Your task to perform on an android device: Search for 3d printed chess sets on Etsy. Image 0: 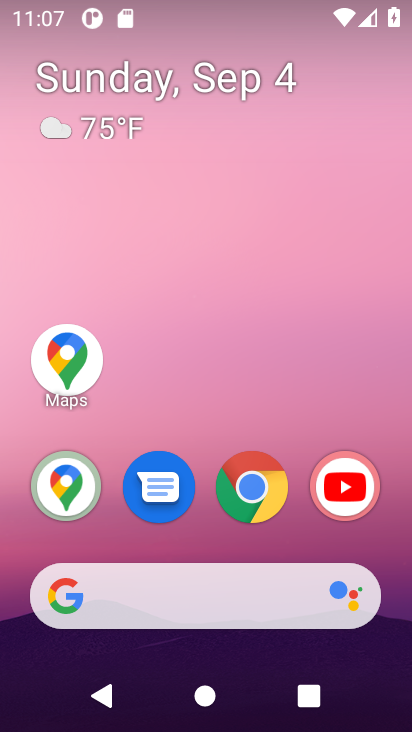
Step 0: click (222, 454)
Your task to perform on an android device: Search for 3d printed chess sets on Etsy. Image 1: 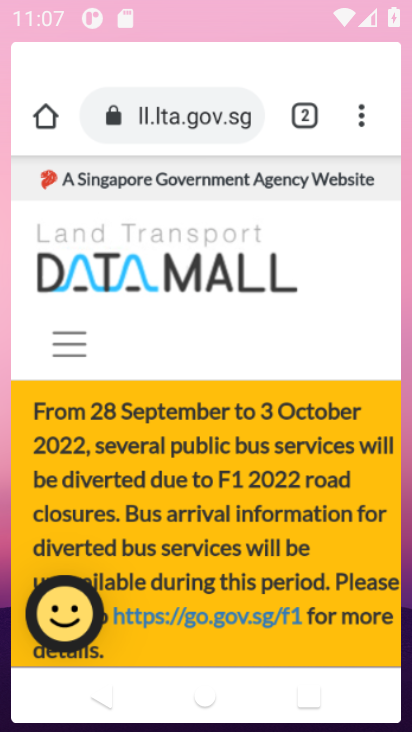
Step 1: task complete